Your task to perform on an android device: open chrome privacy settings Image 0: 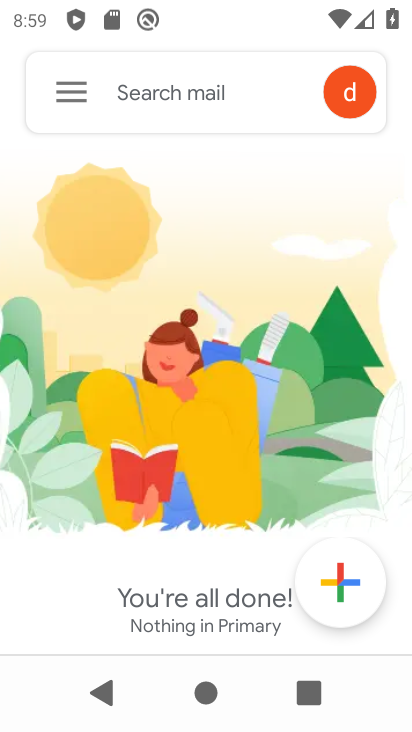
Step 0: press home button
Your task to perform on an android device: open chrome privacy settings Image 1: 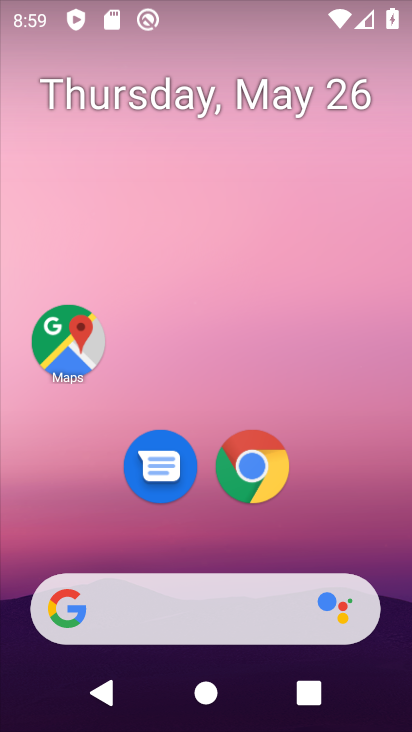
Step 1: click (249, 461)
Your task to perform on an android device: open chrome privacy settings Image 2: 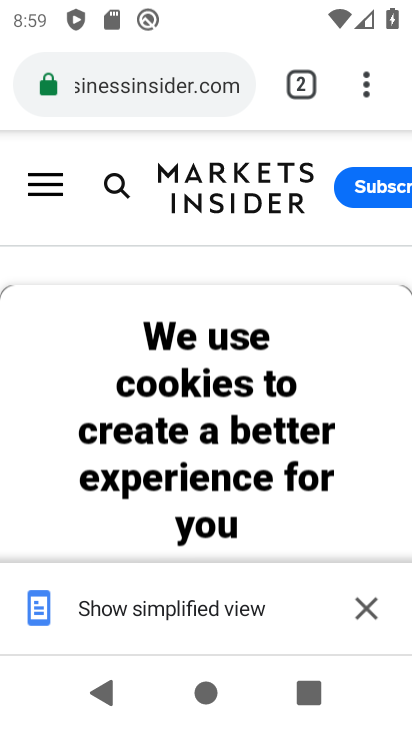
Step 2: click (366, 75)
Your task to perform on an android device: open chrome privacy settings Image 3: 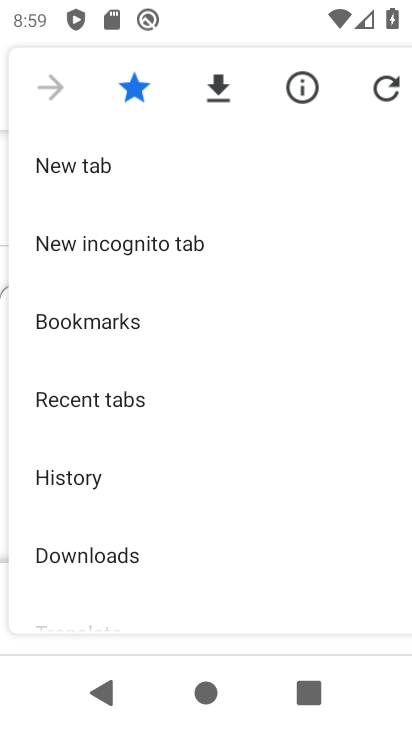
Step 3: drag from (188, 466) to (159, 74)
Your task to perform on an android device: open chrome privacy settings Image 4: 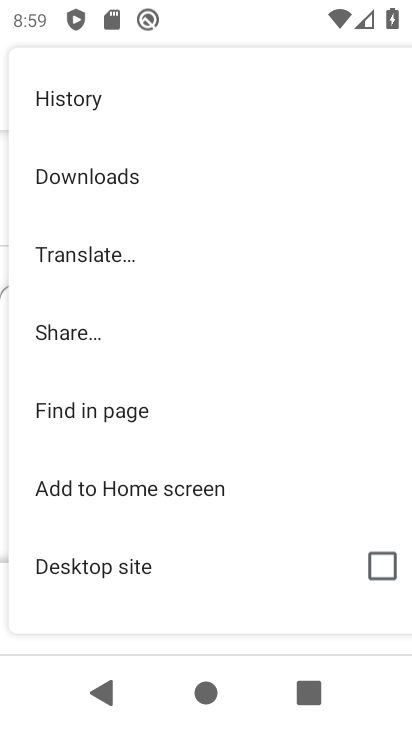
Step 4: drag from (230, 509) to (211, 151)
Your task to perform on an android device: open chrome privacy settings Image 5: 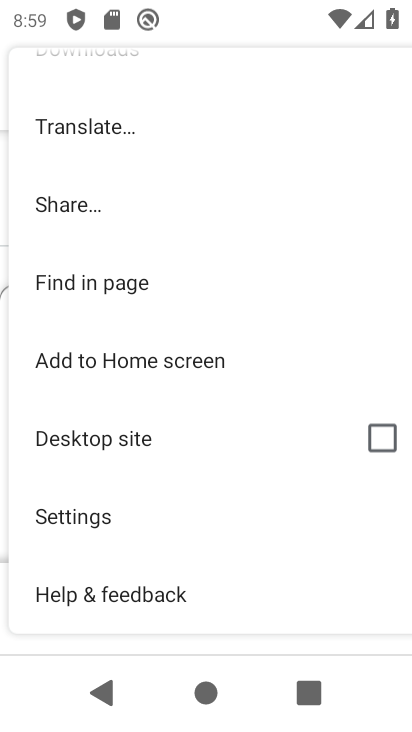
Step 5: click (88, 513)
Your task to perform on an android device: open chrome privacy settings Image 6: 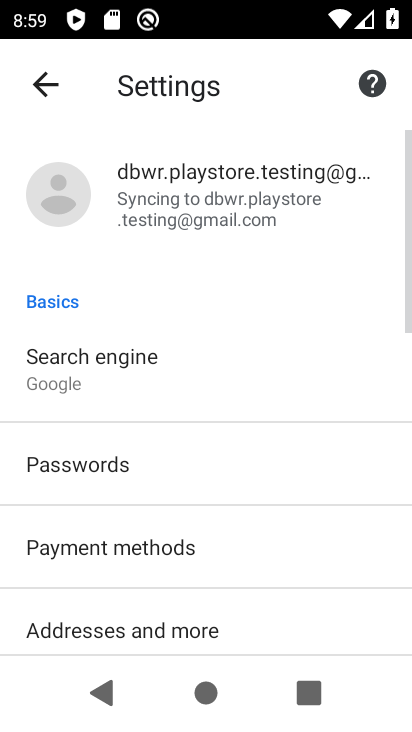
Step 6: drag from (248, 529) to (206, 274)
Your task to perform on an android device: open chrome privacy settings Image 7: 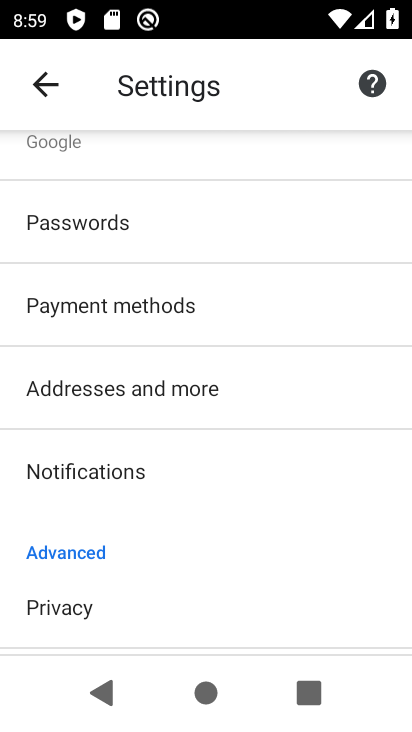
Step 7: click (46, 608)
Your task to perform on an android device: open chrome privacy settings Image 8: 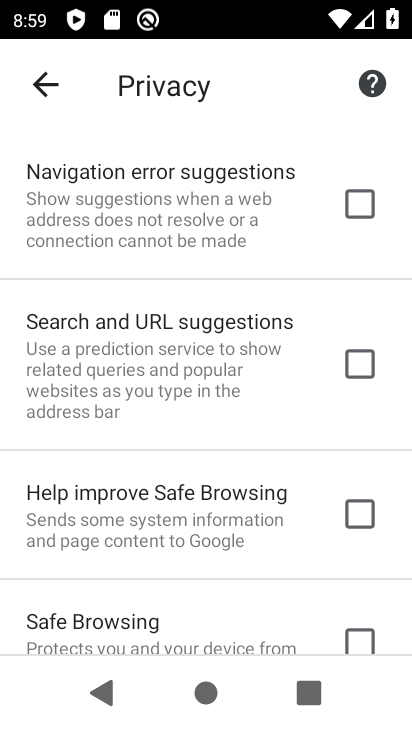
Step 8: task complete